Your task to perform on an android device: toggle priority inbox in the gmail app Image 0: 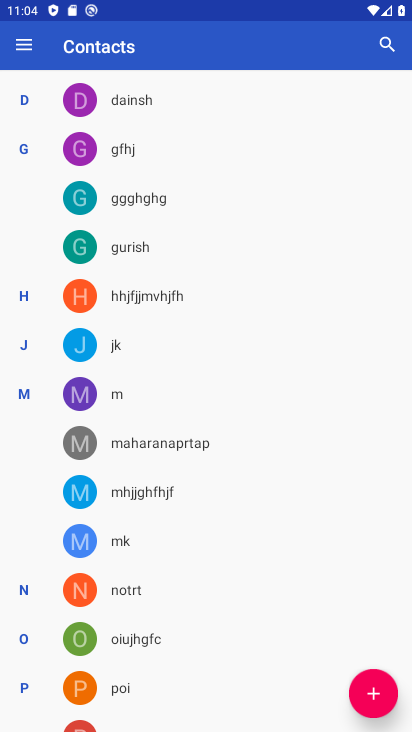
Step 0: press home button
Your task to perform on an android device: toggle priority inbox in the gmail app Image 1: 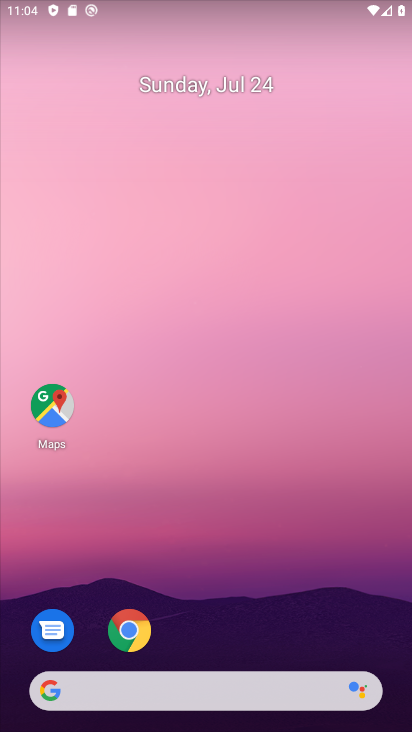
Step 1: drag from (266, 625) to (224, 28)
Your task to perform on an android device: toggle priority inbox in the gmail app Image 2: 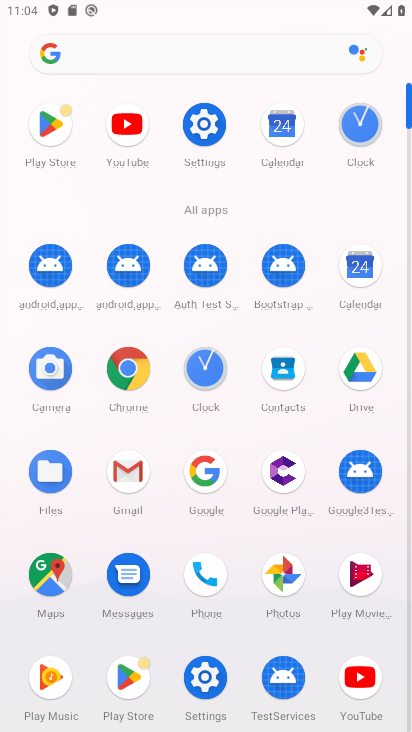
Step 2: click (132, 470)
Your task to perform on an android device: toggle priority inbox in the gmail app Image 3: 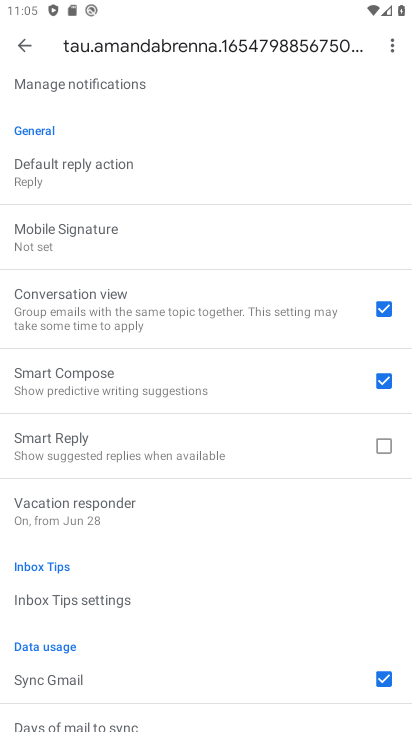
Step 3: drag from (113, 193) to (163, 719)
Your task to perform on an android device: toggle priority inbox in the gmail app Image 4: 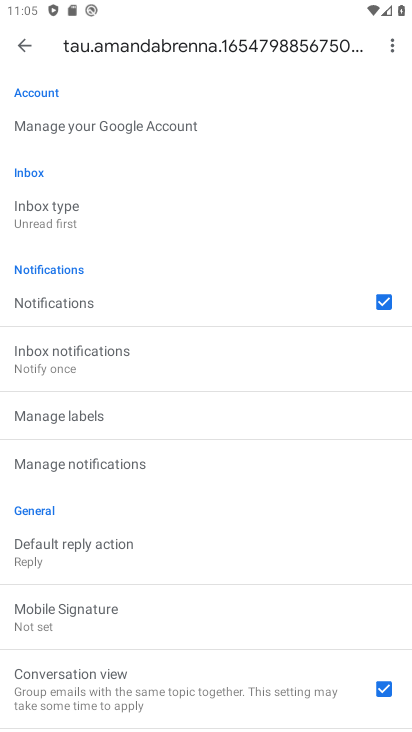
Step 4: click (109, 225)
Your task to perform on an android device: toggle priority inbox in the gmail app Image 5: 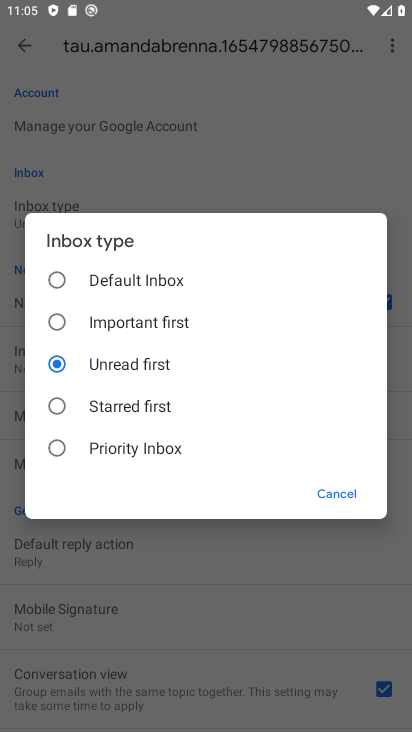
Step 5: click (105, 448)
Your task to perform on an android device: toggle priority inbox in the gmail app Image 6: 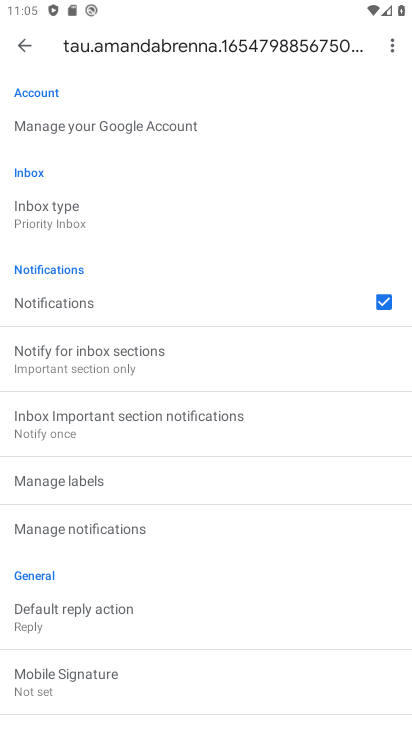
Step 6: task complete